Your task to perform on an android device: turn pop-ups off in chrome Image 0: 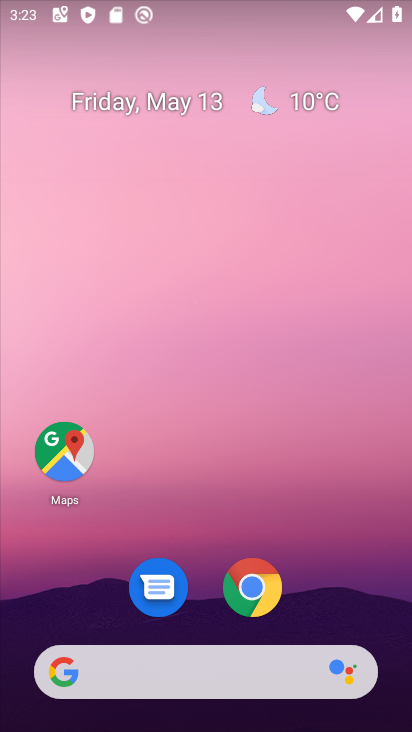
Step 0: click (264, 573)
Your task to perform on an android device: turn pop-ups off in chrome Image 1: 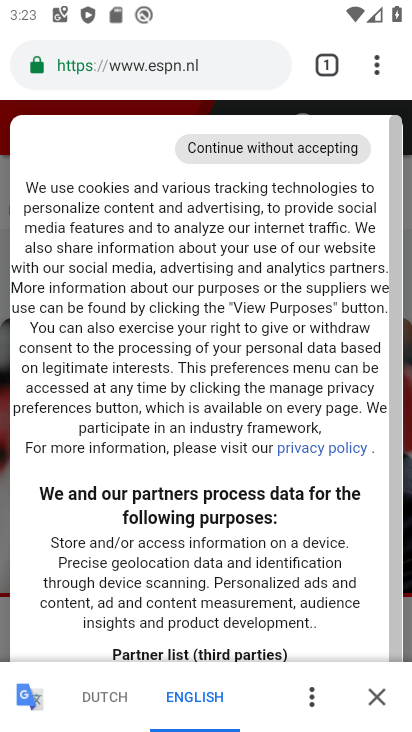
Step 1: click (389, 70)
Your task to perform on an android device: turn pop-ups off in chrome Image 2: 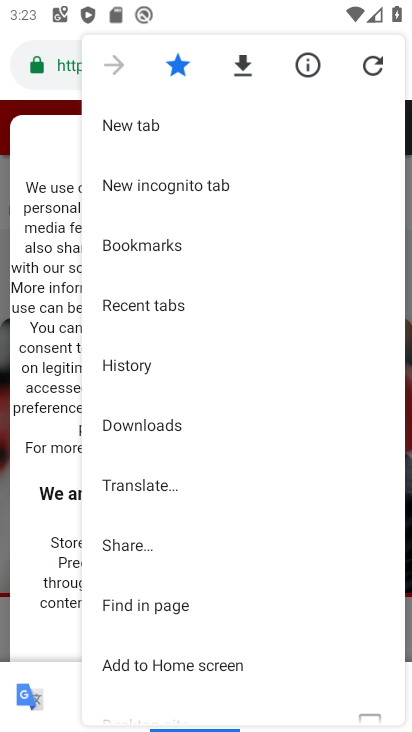
Step 2: drag from (184, 622) to (301, 215)
Your task to perform on an android device: turn pop-ups off in chrome Image 3: 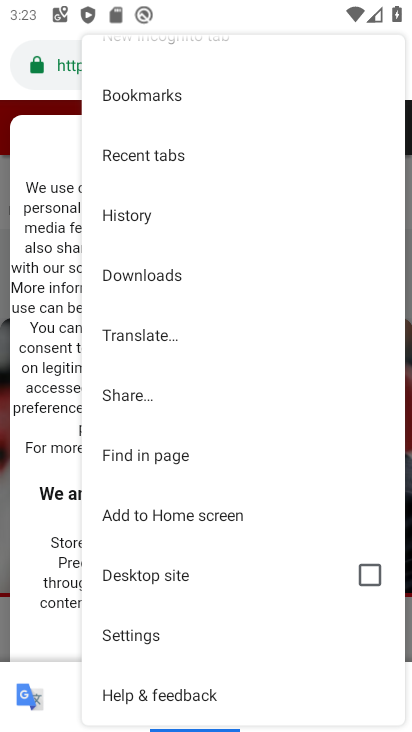
Step 3: click (161, 625)
Your task to perform on an android device: turn pop-ups off in chrome Image 4: 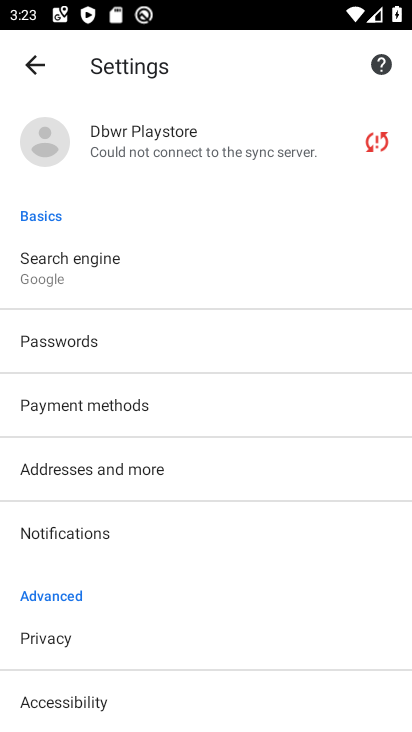
Step 4: drag from (132, 654) to (252, 182)
Your task to perform on an android device: turn pop-ups off in chrome Image 5: 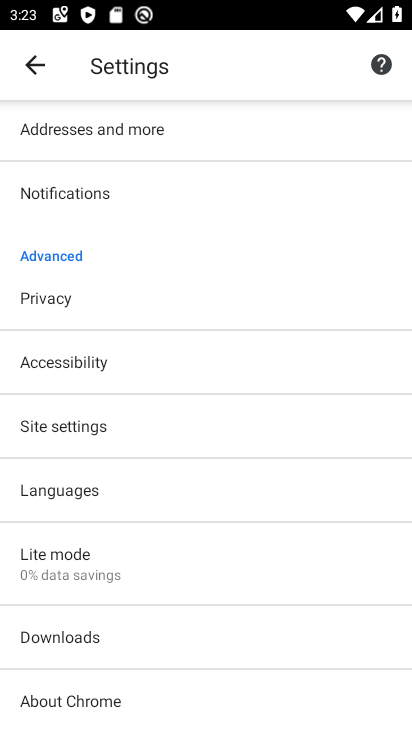
Step 5: click (142, 431)
Your task to perform on an android device: turn pop-ups off in chrome Image 6: 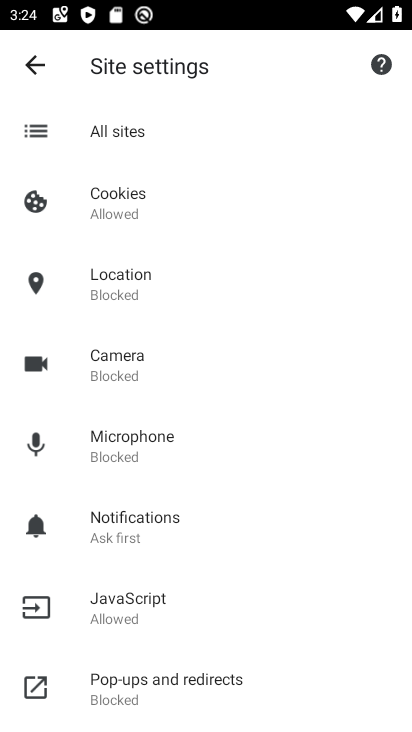
Step 6: click (168, 704)
Your task to perform on an android device: turn pop-ups off in chrome Image 7: 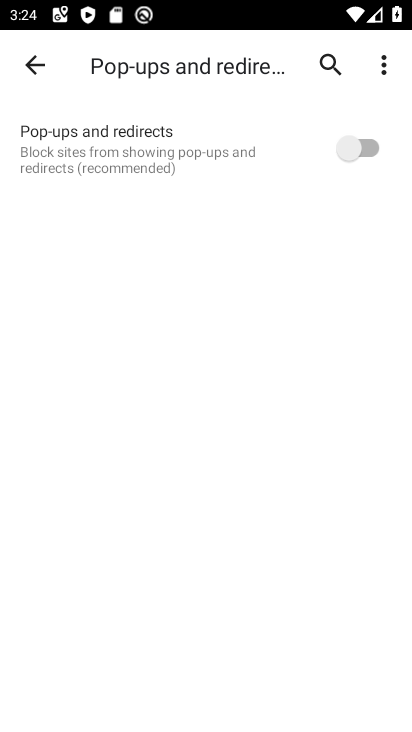
Step 7: task complete